Your task to perform on an android device: turn on data saver in the chrome app Image 0: 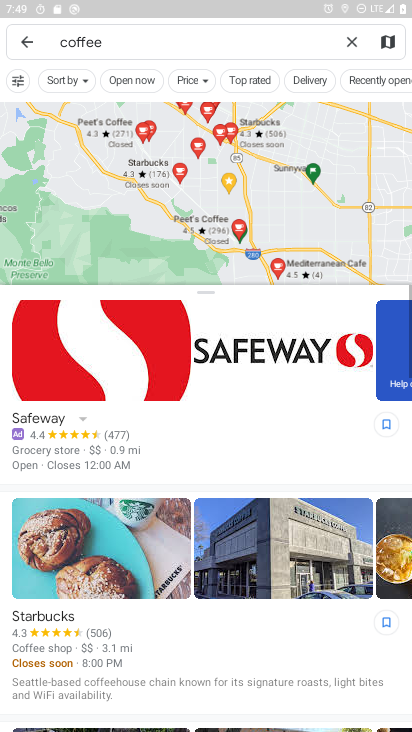
Step 0: press home button
Your task to perform on an android device: turn on data saver in the chrome app Image 1: 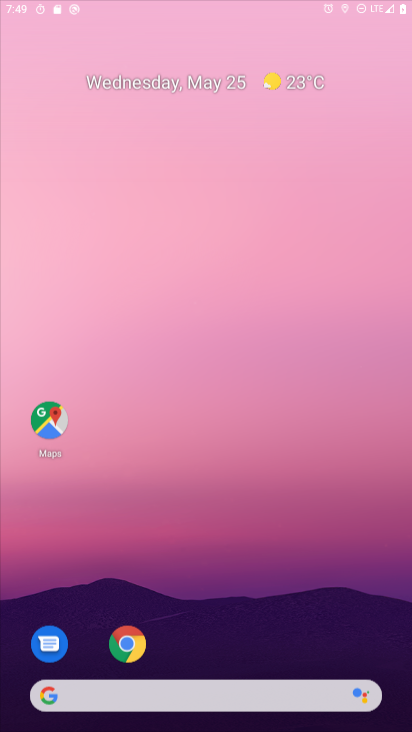
Step 1: drag from (314, 623) to (298, 96)
Your task to perform on an android device: turn on data saver in the chrome app Image 2: 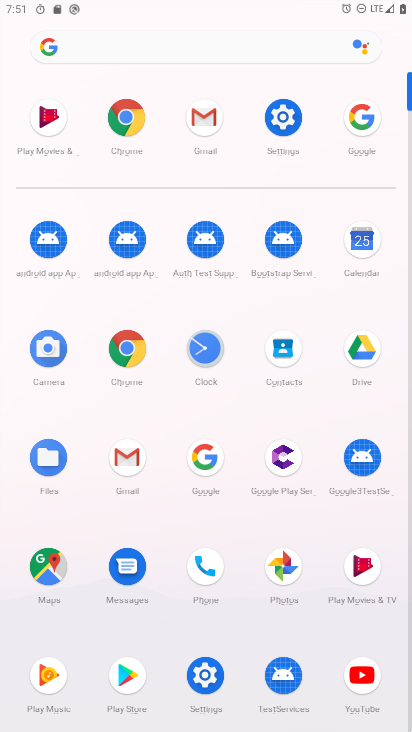
Step 2: click (126, 355)
Your task to perform on an android device: turn on data saver in the chrome app Image 3: 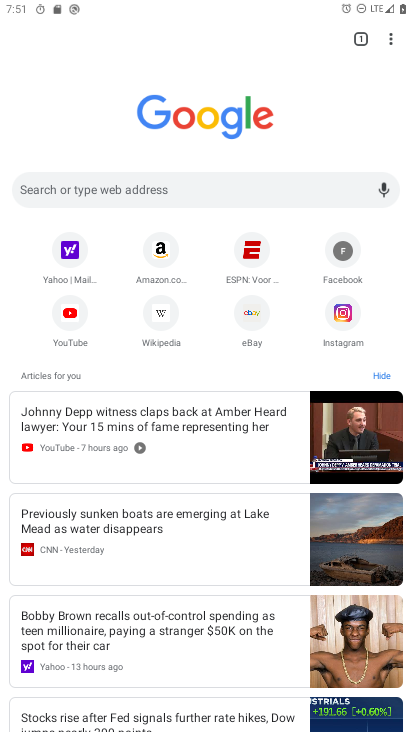
Step 3: click (393, 31)
Your task to perform on an android device: turn on data saver in the chrome app Image 4: 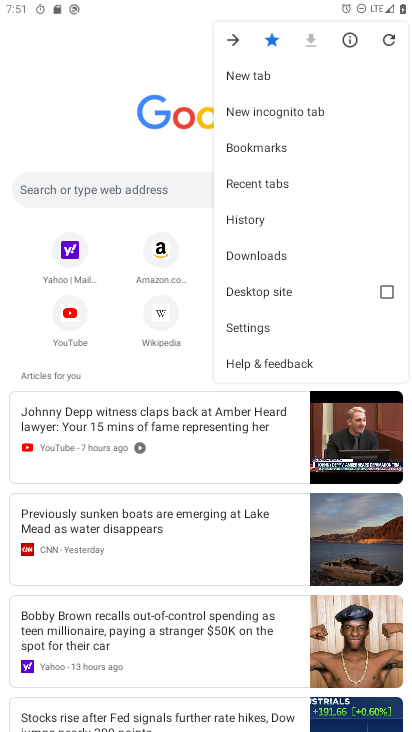
Step 4: click (286, 316)
Your task to perform on an android device: turn on data saver in the chrome app Image 5: 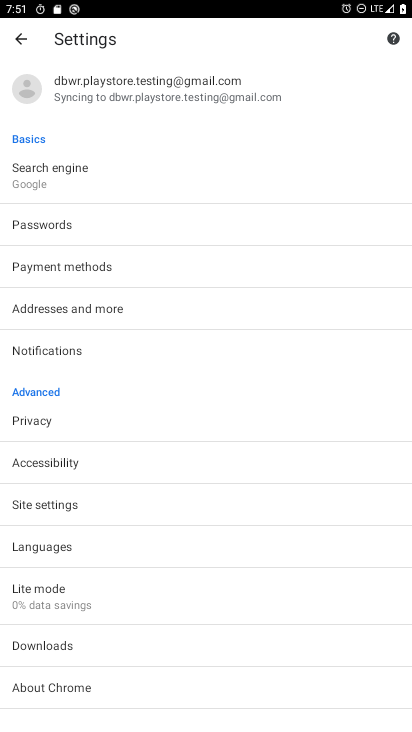
Step 5: click (104, 601)
Your task to perform on an android device: turn on data saver in the chrome app Image 6: 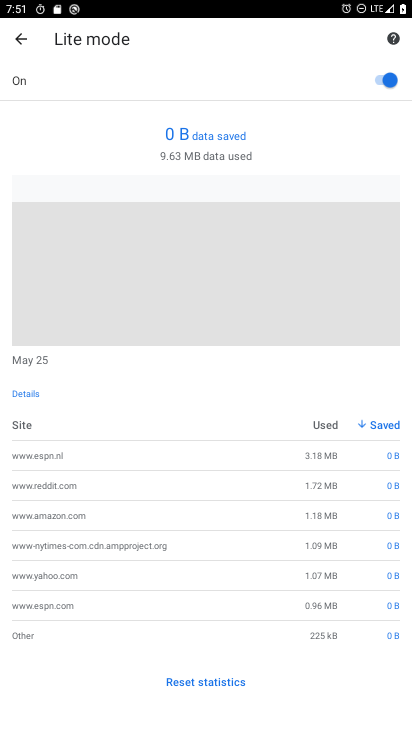
Step 6: task complete